Your task to perform on an android device: Go to internet settings Image 0: 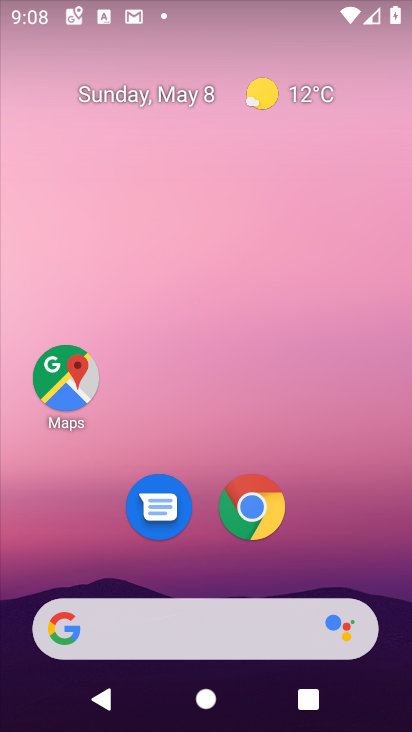
Step 0: drag from (245, 555) to (308, 113)
Your task to perform on an android device: Go to internet settings Image 1: 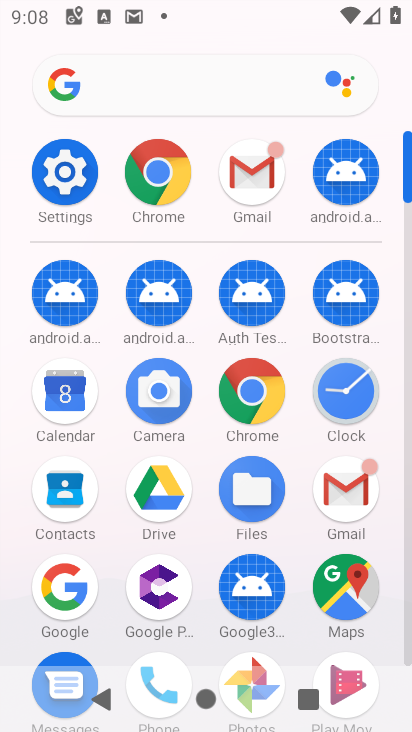
Step 1: click (342, 176)
Your task to perform on an android device: Go to internet settings Image 2: 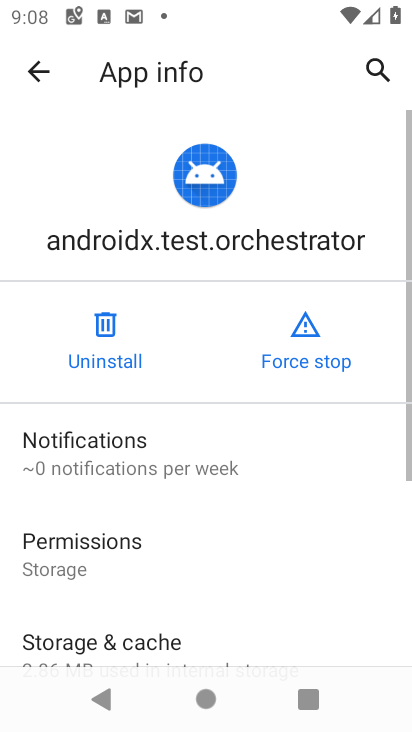
Step 2: click (46, 72)
Your task to perform on an android device: Go to internet settings Image 3: 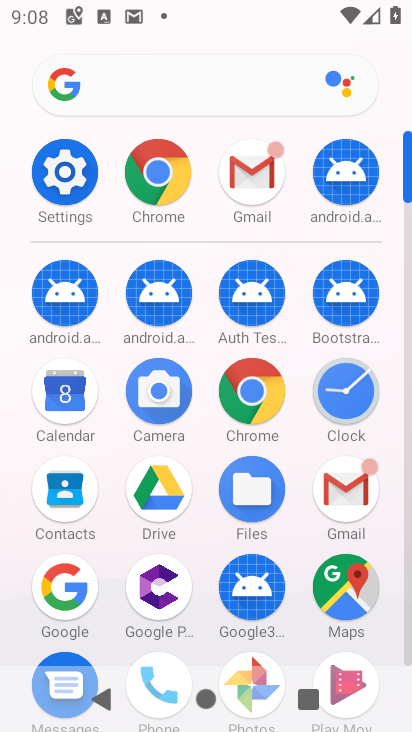
Step 3: click (61, 178)
Your task to perform on an android device: Go to internet settings Image 4: 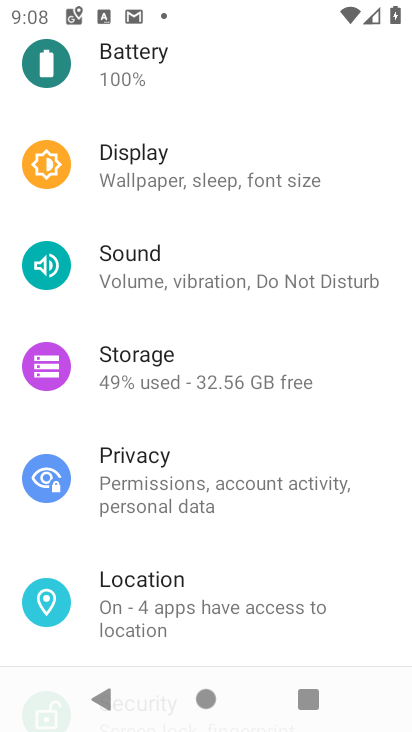
Step 4: drag from (255, 148) to (261, 633)
Your task to perform on an android device: Go to internet settings Image 5: 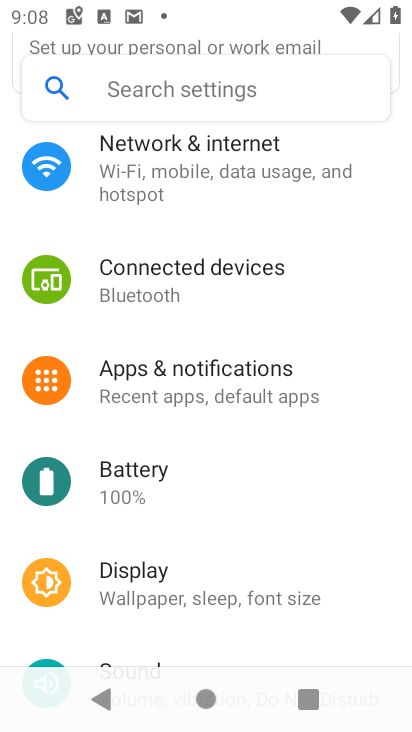
Step 5: click (243, 163)
Your task to perform on an android device: Go to internet settings Image 6: 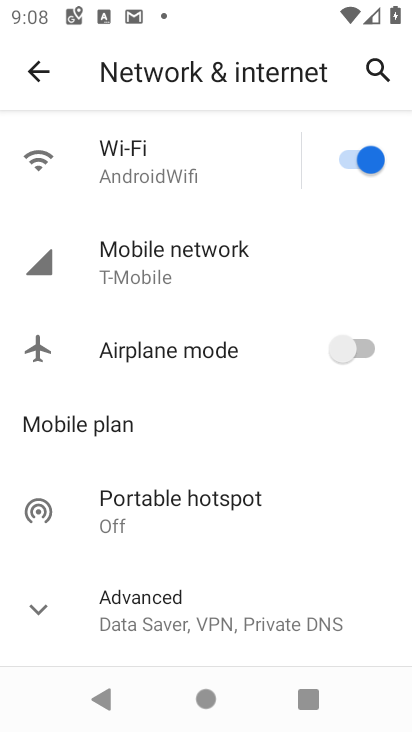
Step 6: task complete